Your task to perform on an android device: Open network settings Image 0: 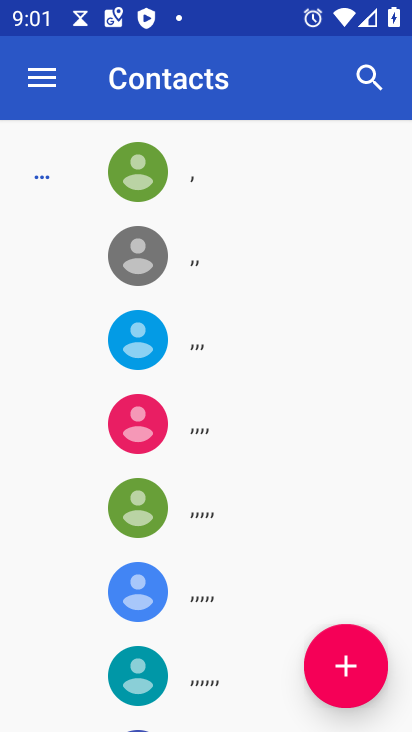
Step 0: press back button
Your task to perform on an android device: Open network settings Image 1: 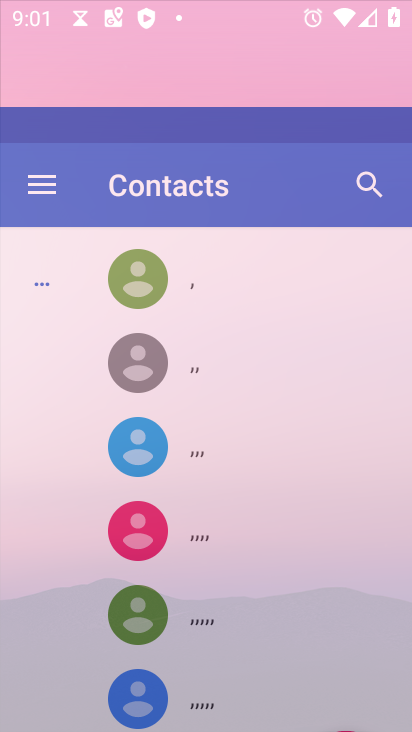
Step 1: press back button
Your task to perform on an android device: Open network settings Image 2: 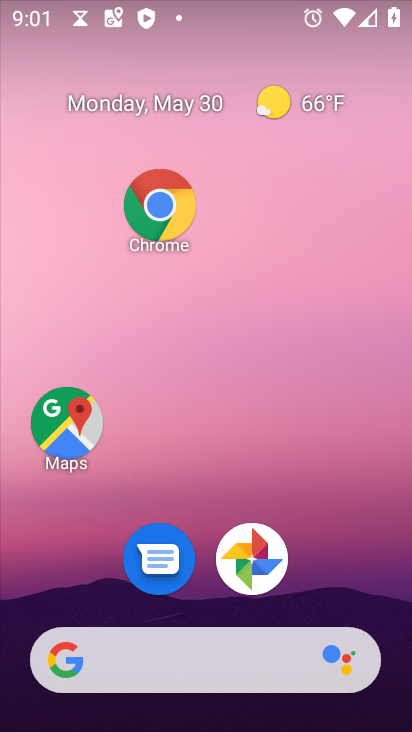
Step 2: drag from (206, 706) to (137, 37)
Your task to perform on an android device: Open network settings Image 3: 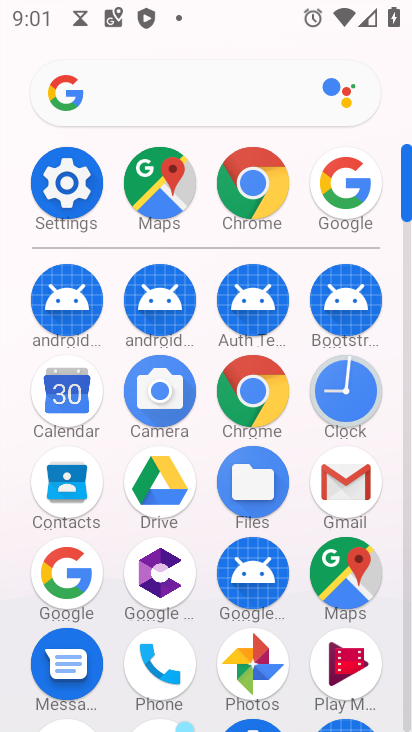
Step 3: click (58, 192)
Your task to perform on an android device: Open network settings Image 4: 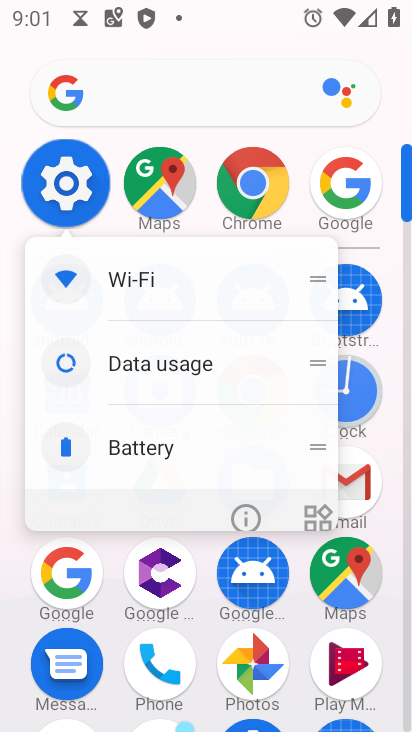
Step 4: click (58, 191)
Your task to perform on an android device: Open network settings Image 5: 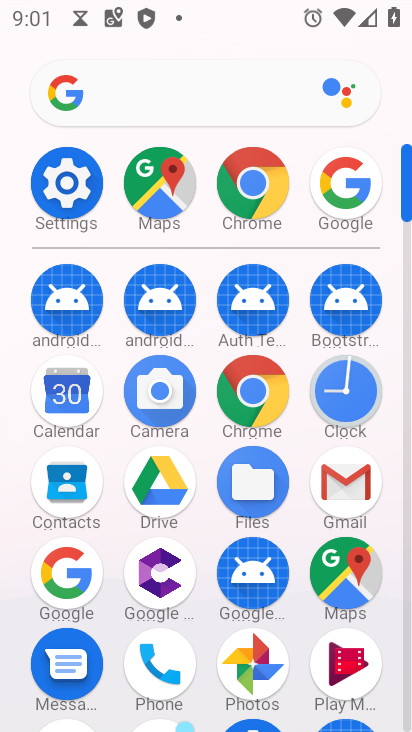
Step 5: click (63, 188)
Your task to perform on an android device: Open network settings Image 6: 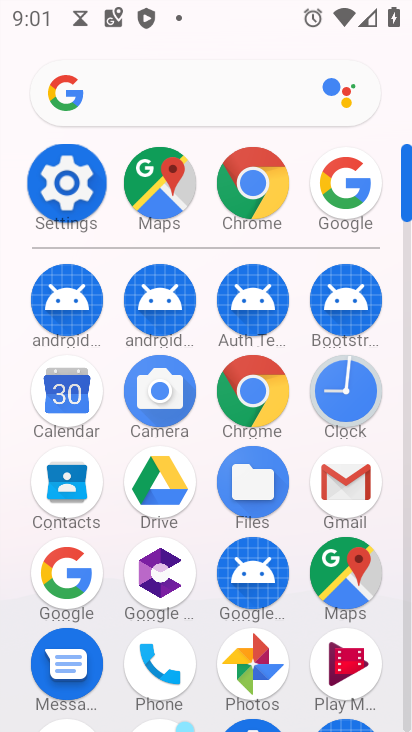
Step 6: click (63, 188)
Your task to perform on an android device: Open network settings Image 7: 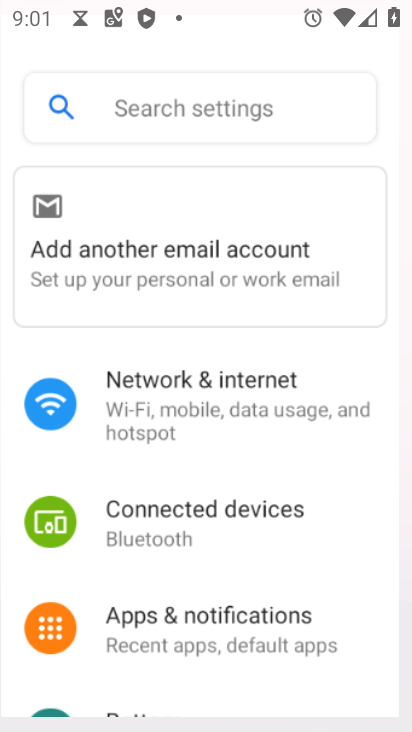
Step 7: click (63, 188)
Your task to perform on an android device: Open network settings Image 8: 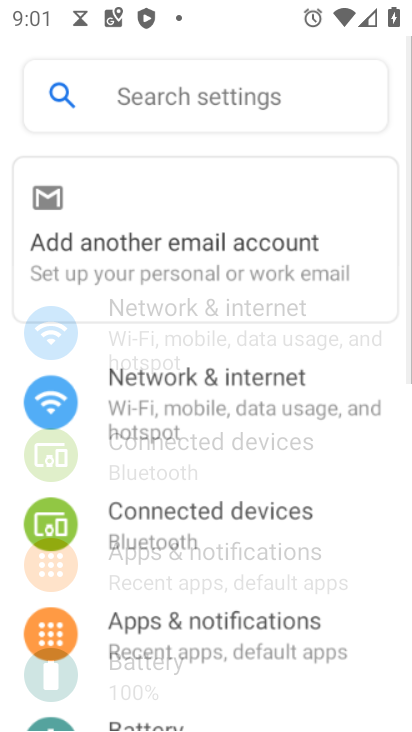
Step 8: click (63, 188)
Your task to perform on an android device: Open network settings Image 9: 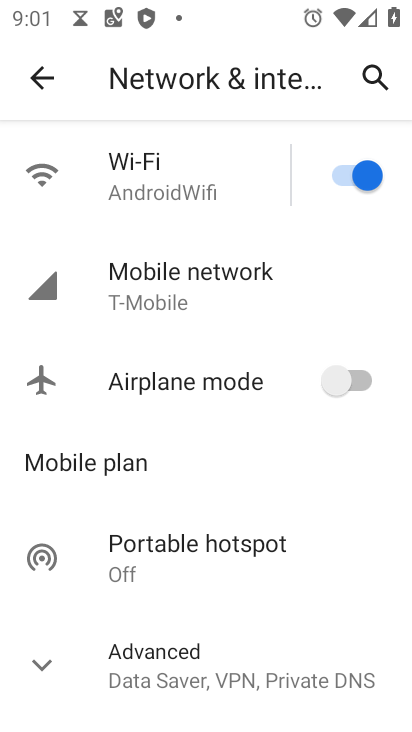
Step 9: click (145, 292)
Your task to perform on an android device: Open network settings Image 10: 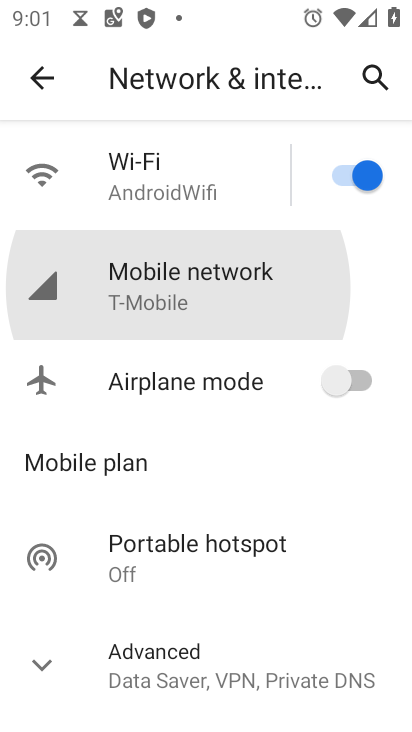
Step 10: click (145, 292)
Your task to perform on an android device: Open network settings Image 11: 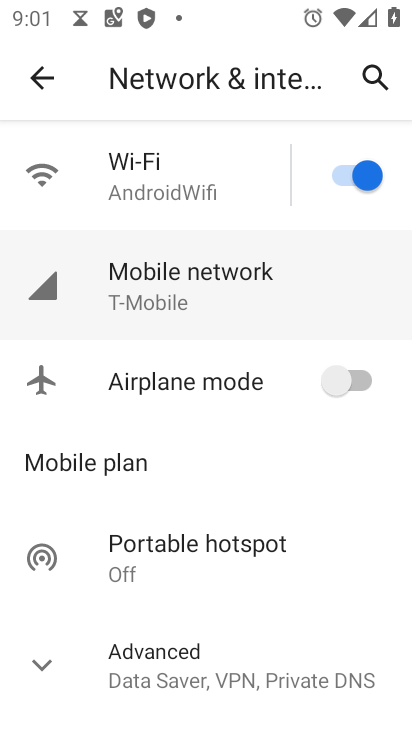
Step 11: click (146, 292)
Your task to perform on an android device: Open network settings Image 12: 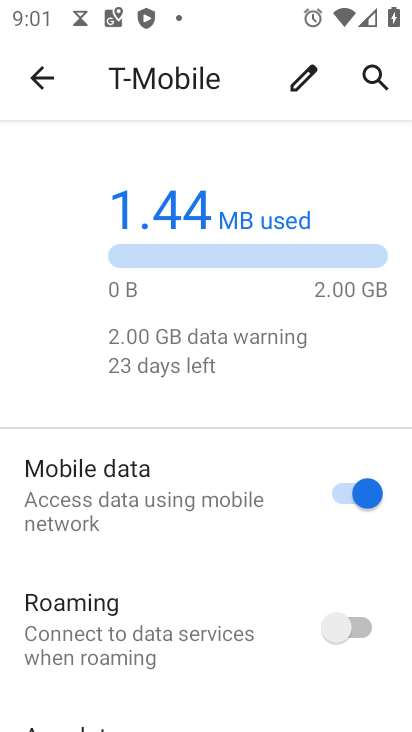
Step 12: click (32, 83)
Your task to perform on an android device: Open network settings Image 13: 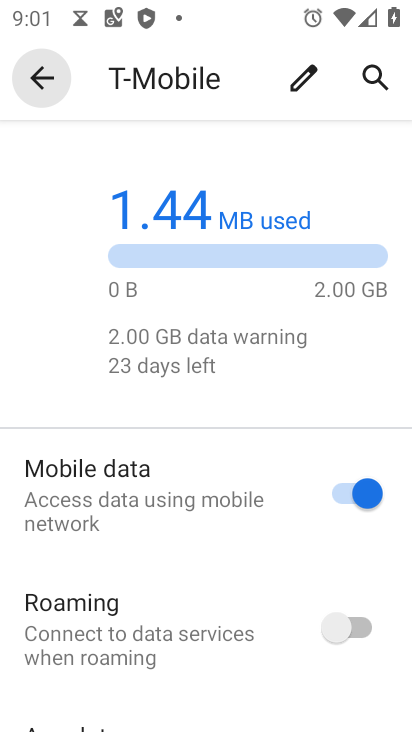
Step 13: click (33, 82)
Your task to perform on an android device: Open network settings Image 14: 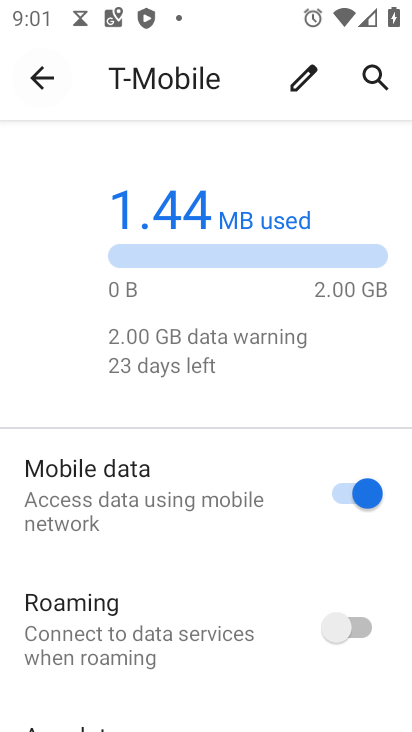
Step 14: click (37, 82)
Your task to perform on an android device: Open network settings Image 15: 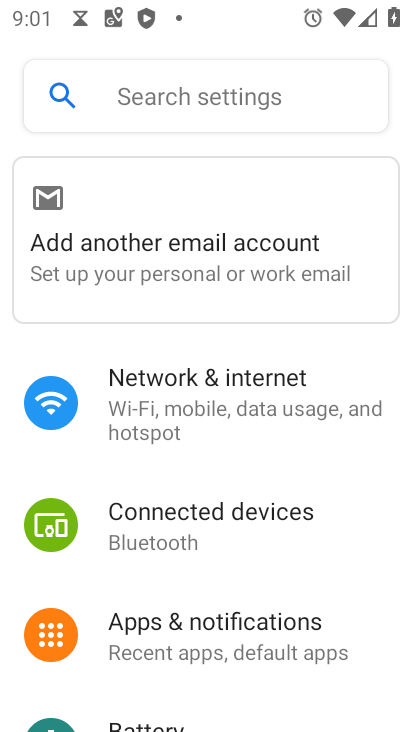
Step 15: click (194, 401)
Your task to perform on an android device: Open network settings Image 16: 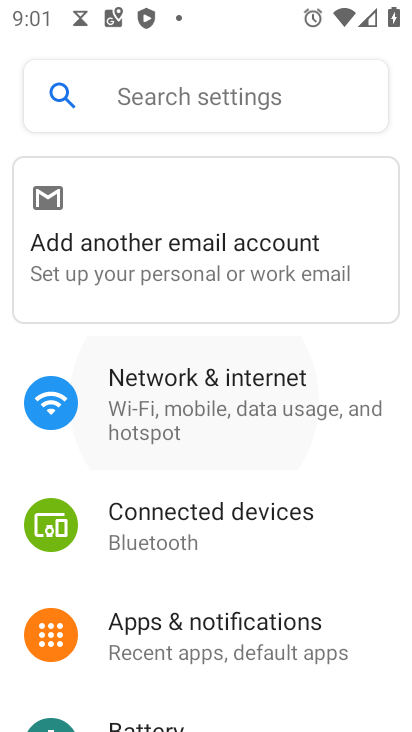
Step 16: click (194, 401)
Your task to perform on an android device: Open network settings Image 17: 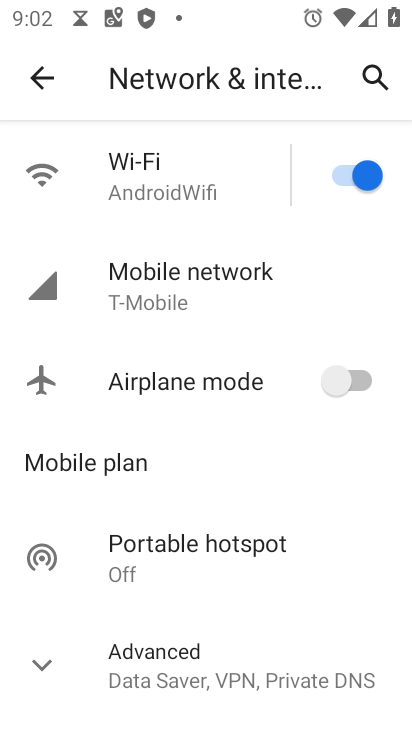
Step 17: task complete